Your task to perform on an android device: Open Google Maps and go to "Timeline" Image 0: 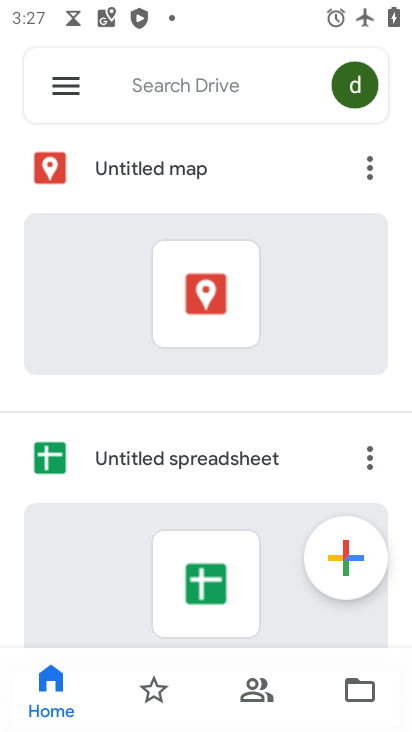
Step 0: press home button
Your task to perform on an android device: Open Google Maps and go to "Timeline" Image 1: 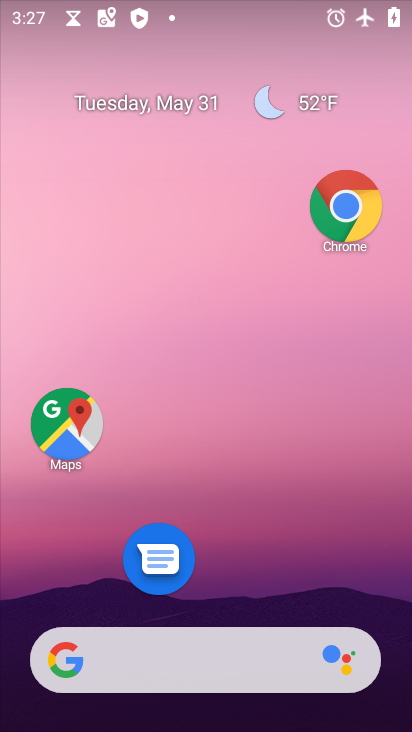
Step 1: click (332, 209)
Your task to perform on an android device: Open Google Maps and go to "Timeline" Image 2: 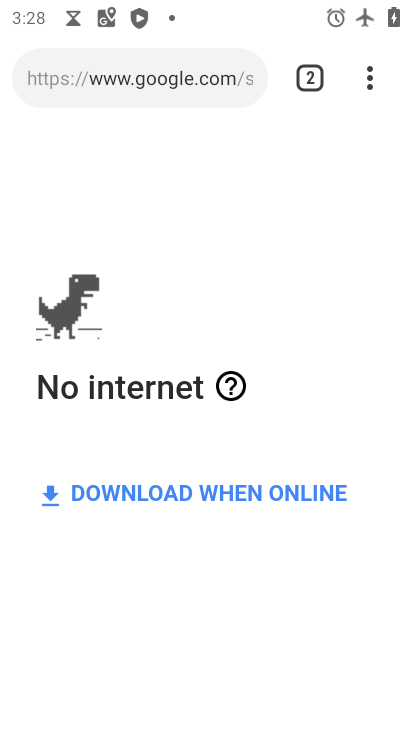
Step 2: task complete